Your task to perform on an android device: Open Google Maps and go to "Timeline" Image 0: 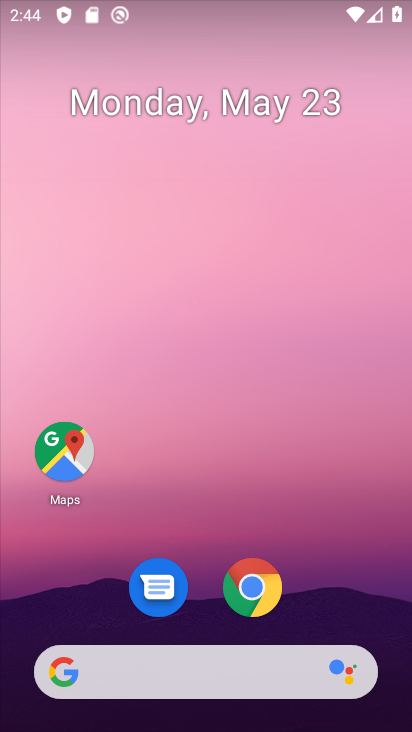
Step 0: drag from (225, 622) to (210, 188)
Your task to perform on an android device: Open Google Maps and go to "Timeline" Image 1: 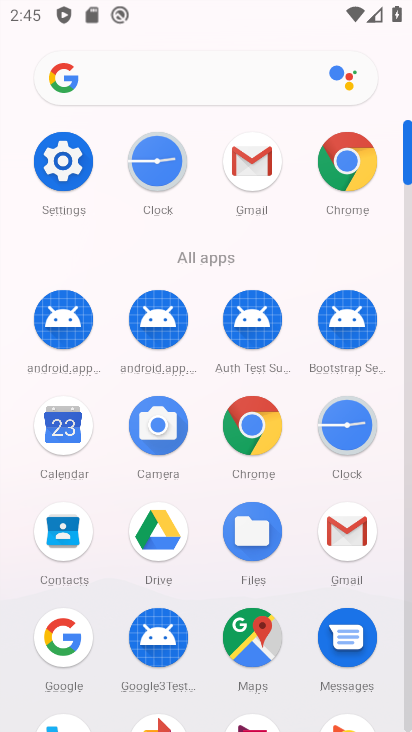
Step 1: click (262, 636)
Your task to perform on an android device: Open Google Maps and go to "Timeline" Image 2: 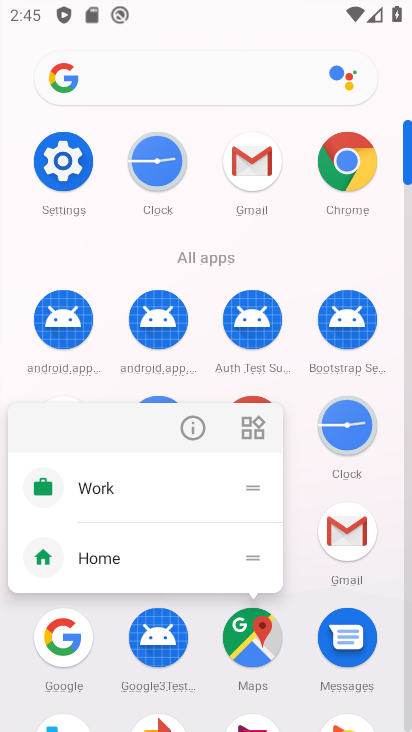
Step 2: click (253, 639)
Your task to perform on an android device: Open Google Maps and go to "Timeline" Image 3: 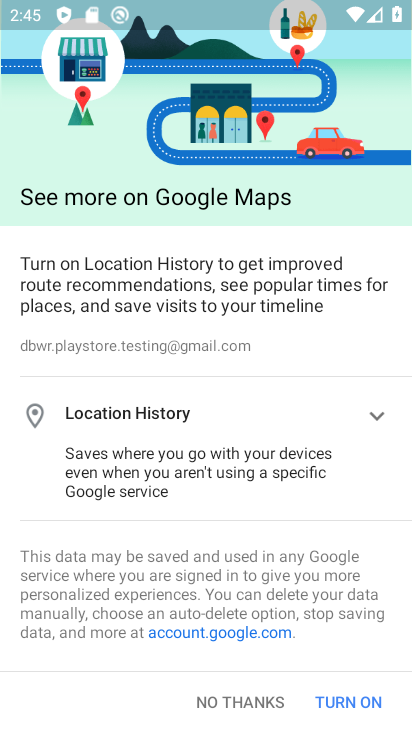
Step 3: click (360, 696)
Your task to perform on an android device: Open Google Maps and go to "Timeline" Image 4: 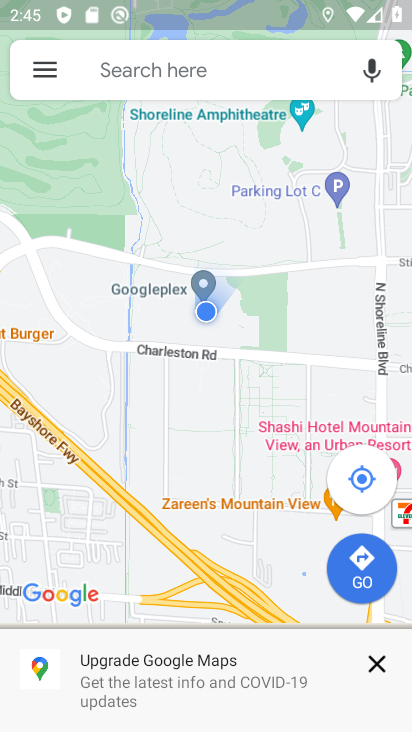
Step 4: click (44, 71)
Your task to perform on an android device: Open Google Maps and go to "Timeline" Image 5: 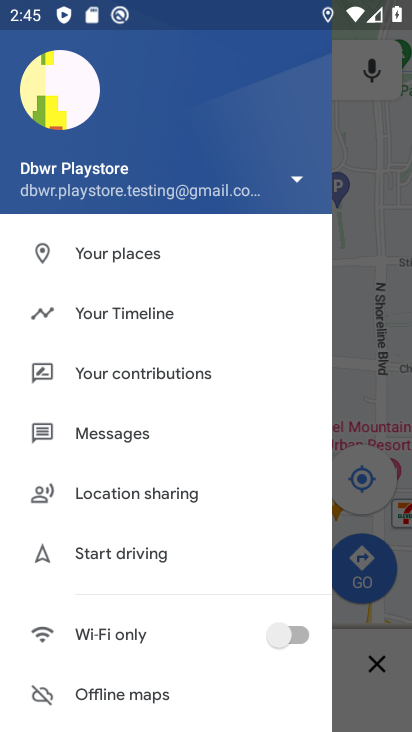
Step 5: click (115, 317)
Your task to perform on an android device: Open Google Maps and go to "Timeline" Image 6: 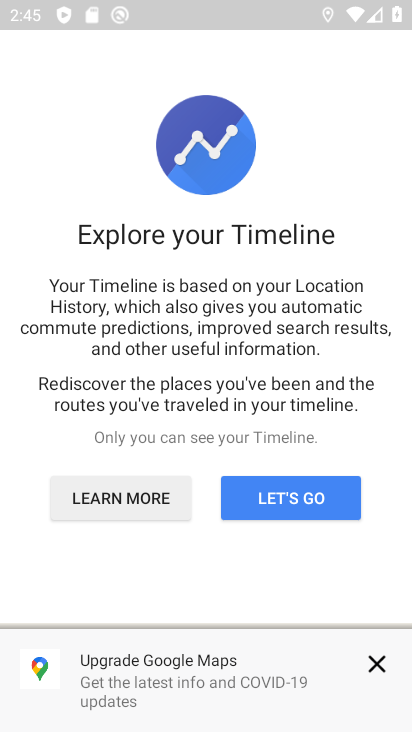
Step 6: task complete